Your task to perform on an android device: open a bookmark in the chrome app Image 0: 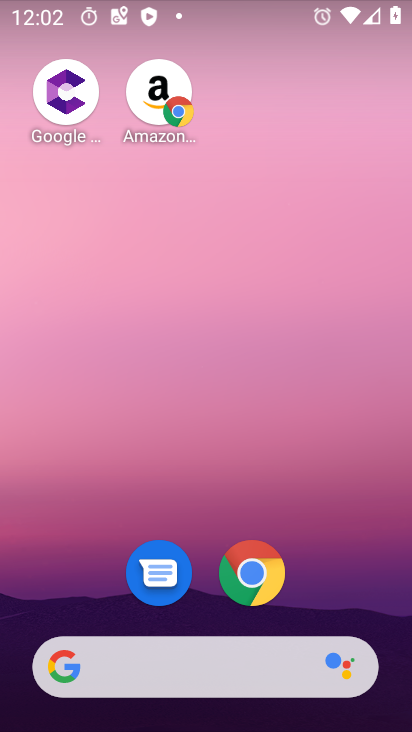
Step 0: drag from (228, 696) to (272, 433)
Your task to perform on an android device: open a bookmark in the chrome app Image 1: 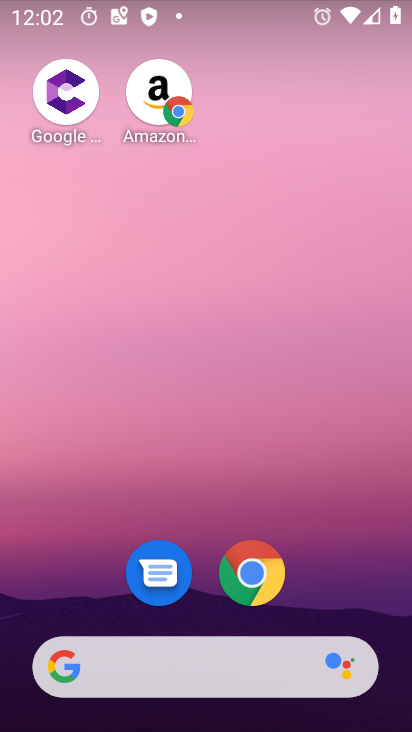
Step 1: drag from (223, 708) to (321, 430)
Your task to perform on an android device: open a bookmark in the chrome app Image 2: 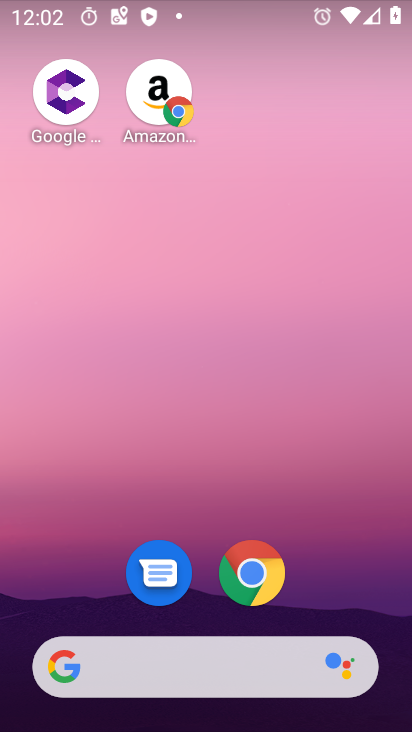
Step 2: click (272, 587)
Your task to perform on an android device: open a bookmark in the chrome app Image 3: 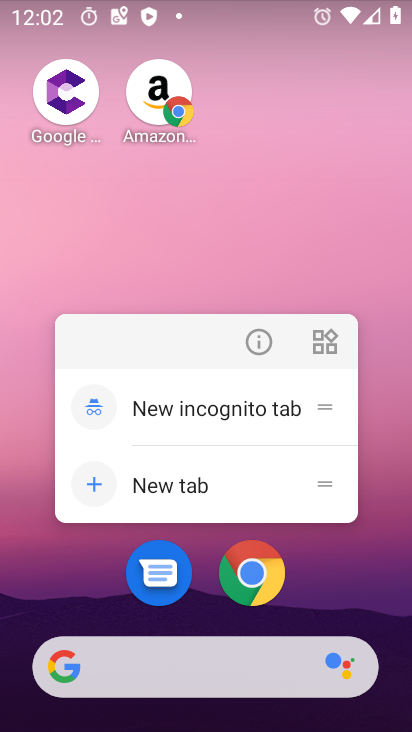
Step 3: click (258, 583)
Your task to perform on an android device: open a bookmark in the chrome app Image 4: 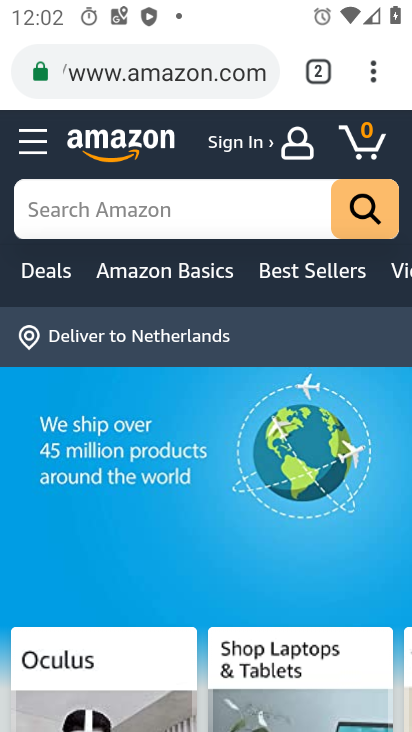
Step 4: click (373, 84)
Your task to perform on an android device: open a bookmark in the chrome app Image 5: 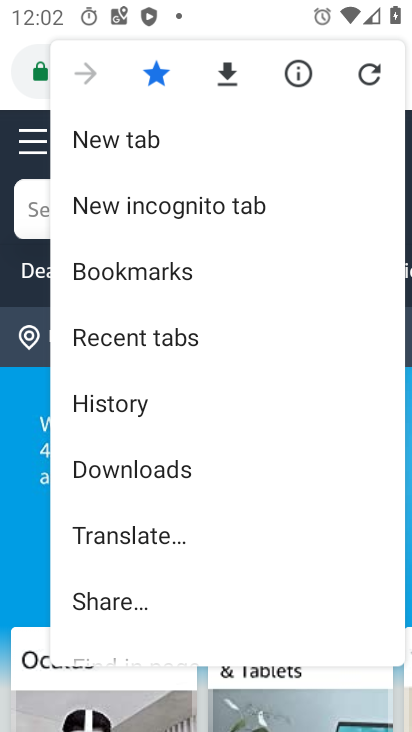
Step 5: click (166, 266)
Your task to perform on an android device: open a bookmark in the chrome app Image 6: 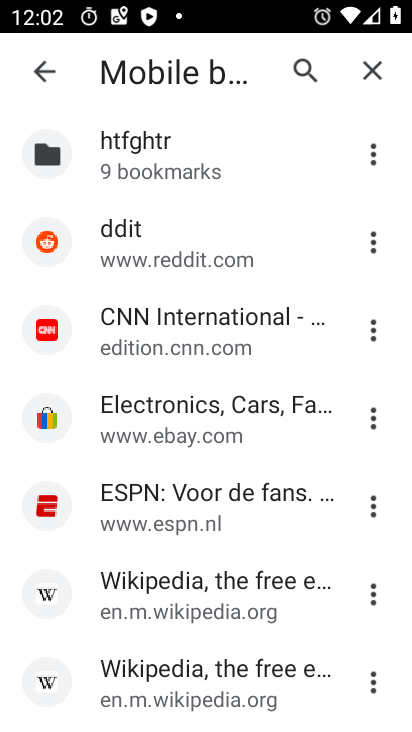
Step 6: click (149, 314)
Your task to perform on an android device: open a bookmark in the chrome app Image 7: 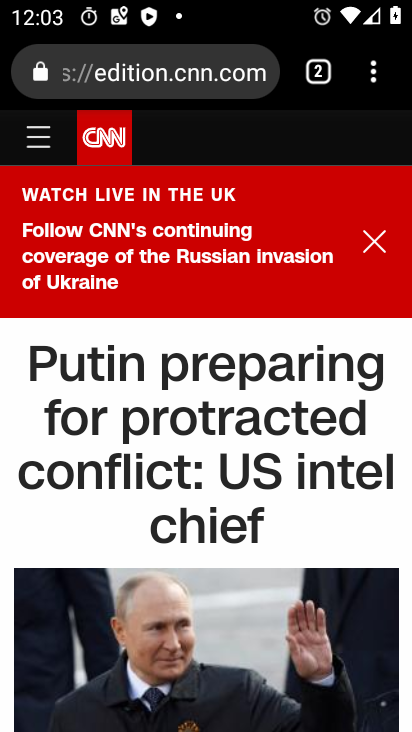
Step 7: task complete